Your task to perform on an android device: turn off priority inbox in the gmail app Image 0: 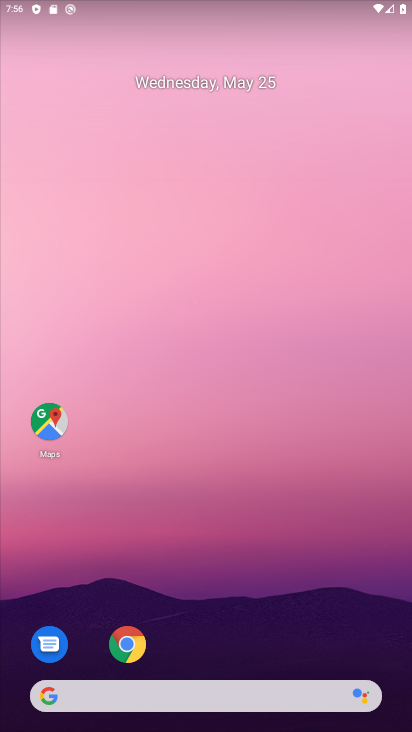
Step 0: drag from (200, 662) to (289, 22)
Your task to perform on an android device: turn off priority inbox in the gmail app Image 1: 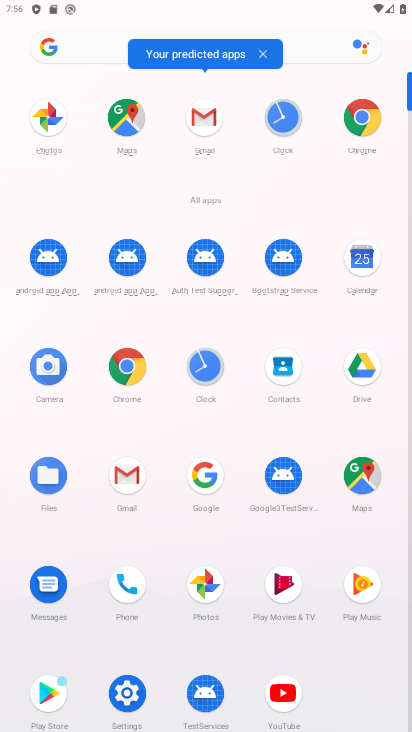
Step 1: click (126, 477)
Your task to perform on an android device: turn off priority inbox in the gmail app Image 2: 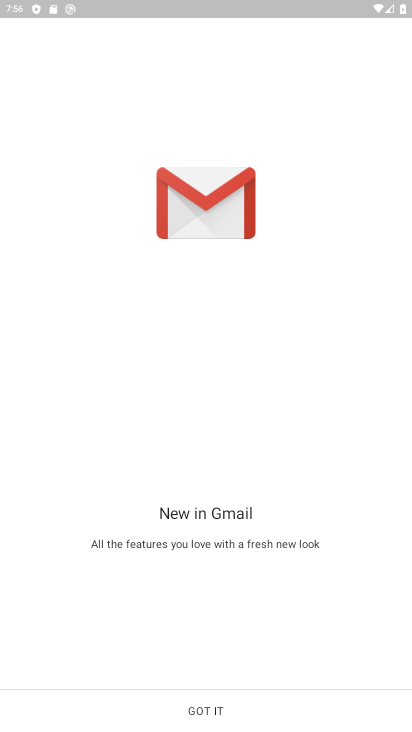
Step 2: click (224, 715)
Your task to perform on an android device: turn off priority inbox in the gmail app Image 3: 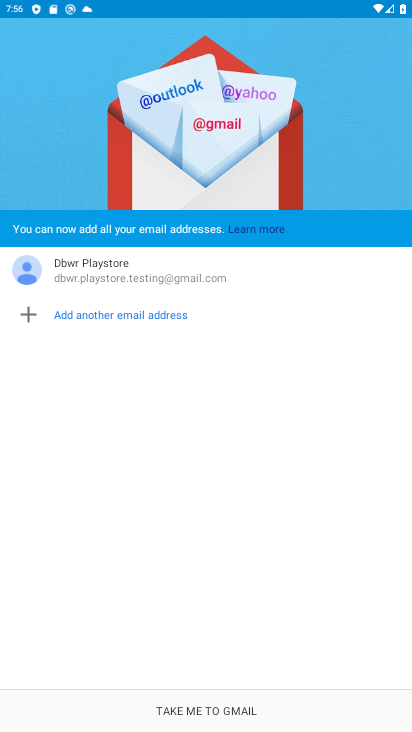
Step 3: click (227, 710)
Your task to perform on an android device: turn off priority inbox in the gmail app Image 4: 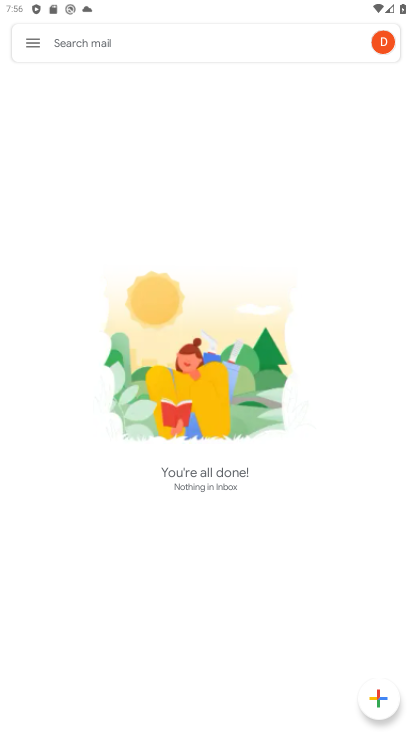
Step 4: click (34, 44)
Your task to perform on an android device: turn off priority inbox in the gmail app Image 5: 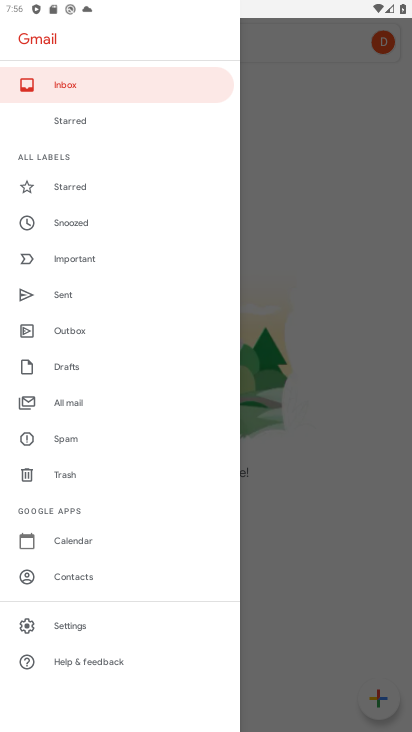
Step 5: click (80, 630)
Your task to perform on an android device: turn off priority inbox in the gmail app Image 6: 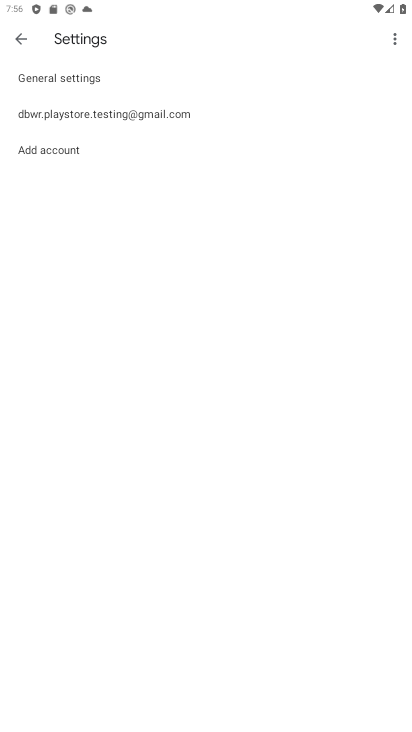
Step 6: click (56, 117)
Your task to perform on an android device: turn off priority inbox in the gmail app Image 7: 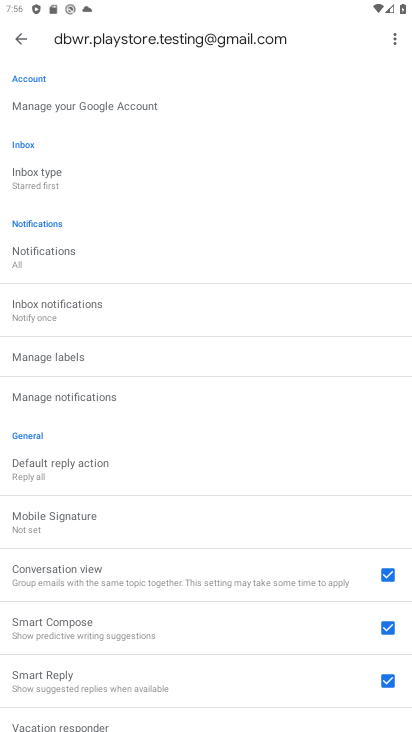
Step 7: click (65, 180)
Your task to perform on an android device: turn off priority inbox in the gmail app Image 8: 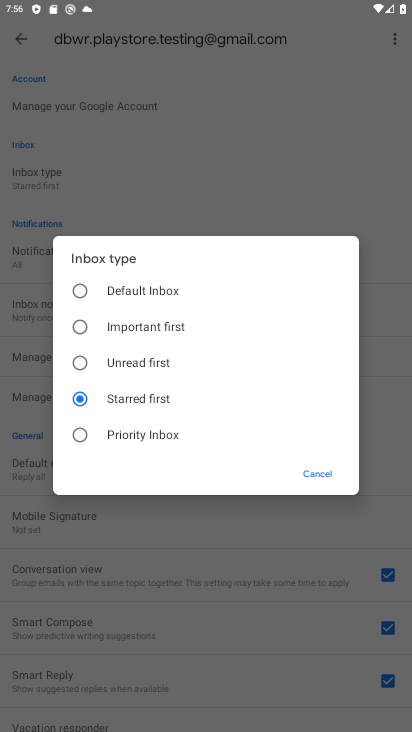
Step 8: click (95, 285)
Your task to perform on an android device: turn off priority inbox in the gmail app Image 9: 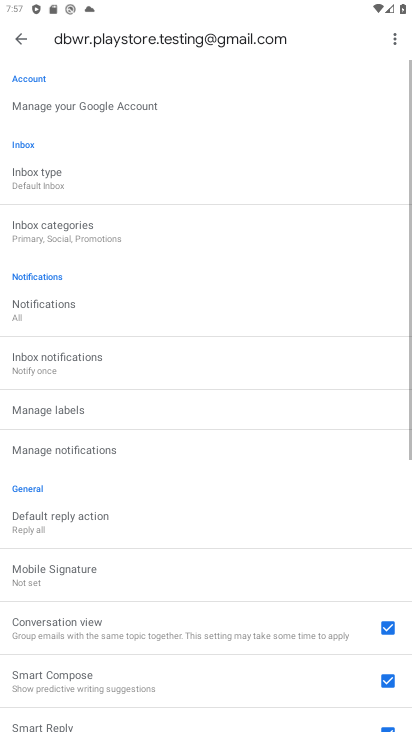
Step 9: task complete